Your task to perform on an android device: Open Wikipedia Image 0: 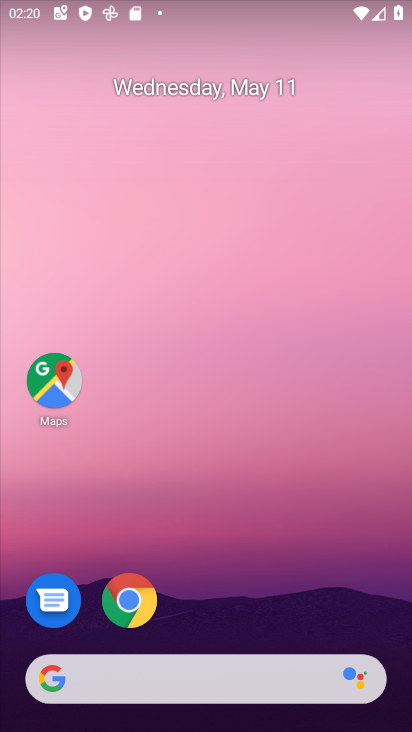
Step 0: drag from (209, 721) to (241, 47)
Your task to perform on an android device: Open Wikipedia Image 1: 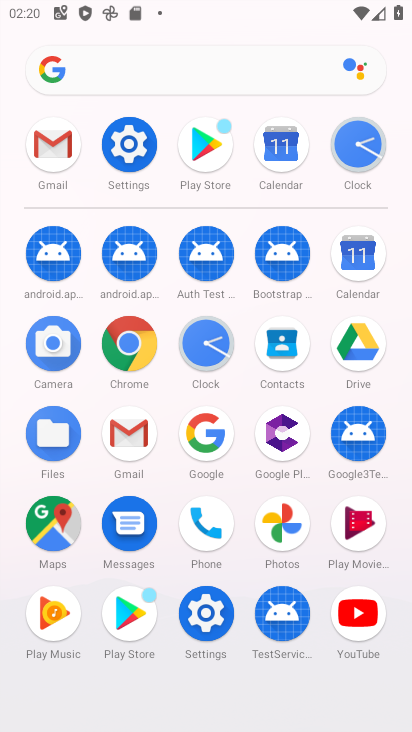
Step 1: click (187, 428)
Your task to perform on an android device: Open Wikipedia Image 2: 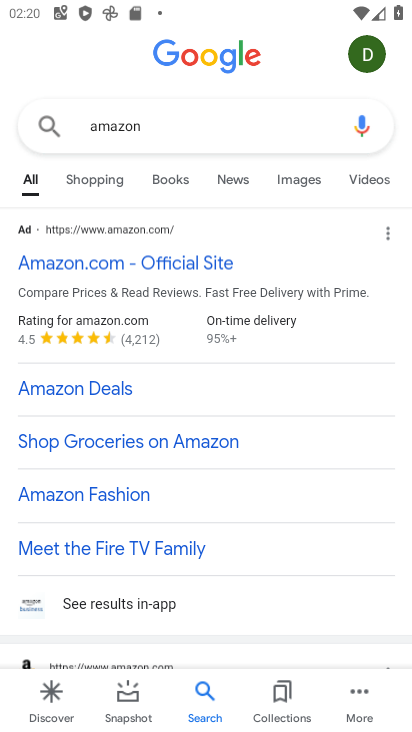
Step 2: click (236, 122)
Your task to perform on an android device: Open Wikipedia Image 3: 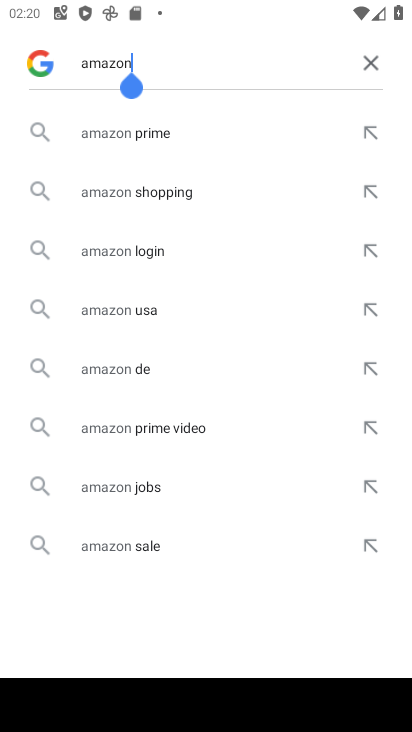
Step 3: click (366, 62)
Your task to perform on an android device: Open Wikipedia Image 4: 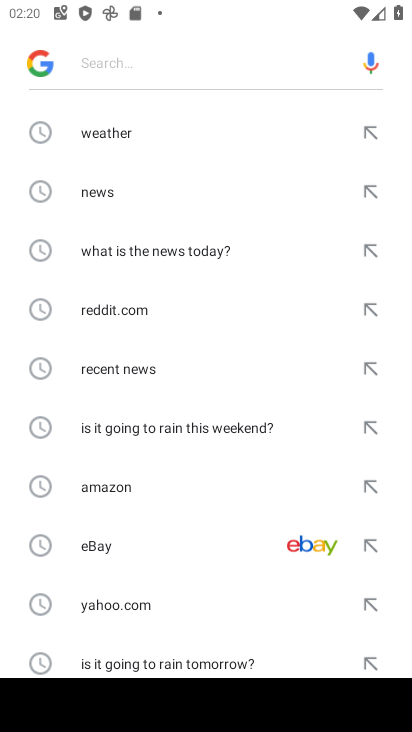
Step 4: type "wikipedia "
Your task to perform on an android device: Open Wikipedia Image 5: 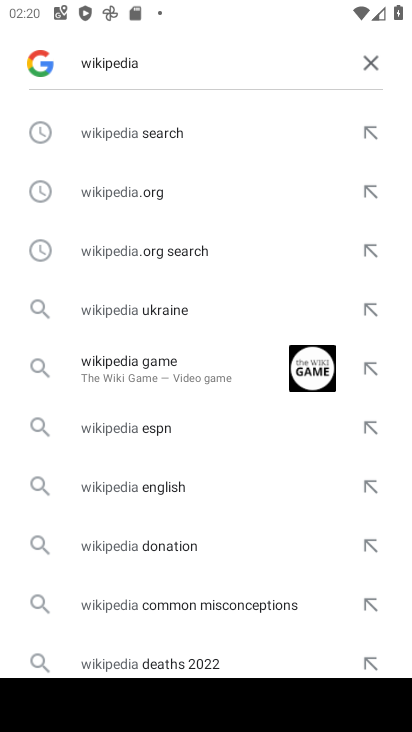
Step 5: click (204, 124)
Your task to perform on an android device: Open Wikipedia Image 6: 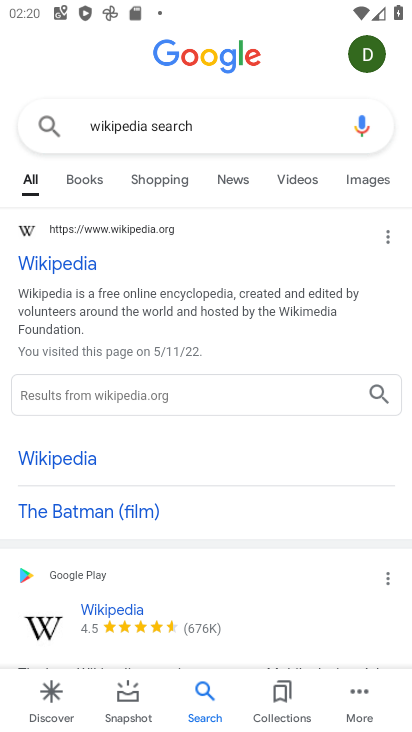
Step 6: click (73, 227)
Your task to perform on an android device: Open Wikipedia Image 7: 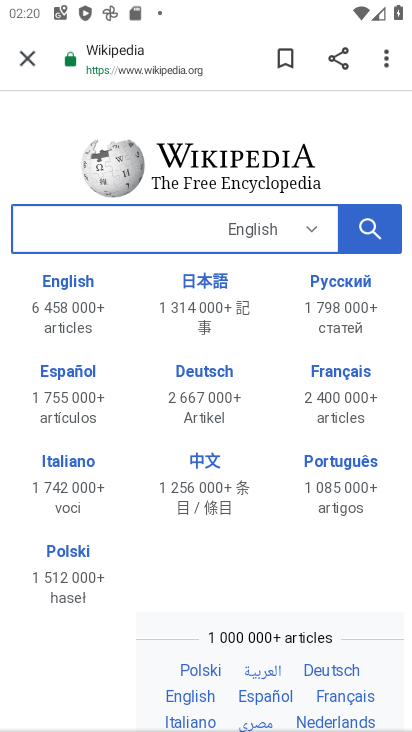
Step 7: task complete